Your task to perform on an android device: see creations saved in the google photos Image 0: 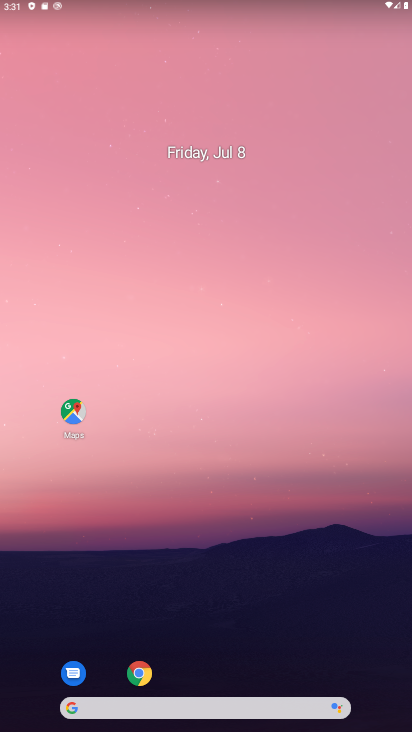
Step 0: drag from (266, 692) to (265, 61)
Your task to perform on an android device: see creations saved in the google photos Image 1: 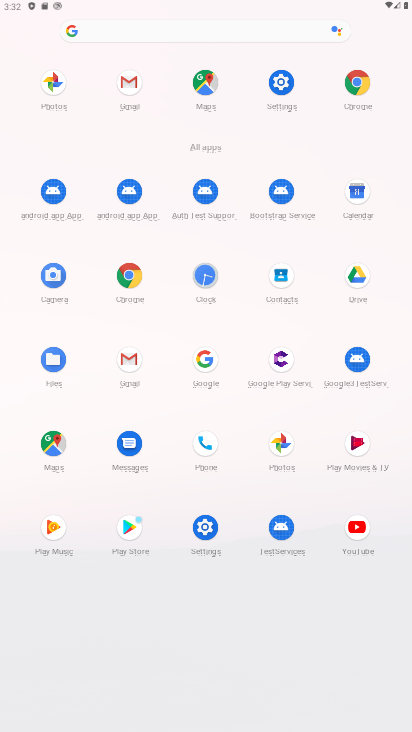
Step 1: click (50, 92)
Your task to perform on an android device: see creations saved in the google photos Image 2: 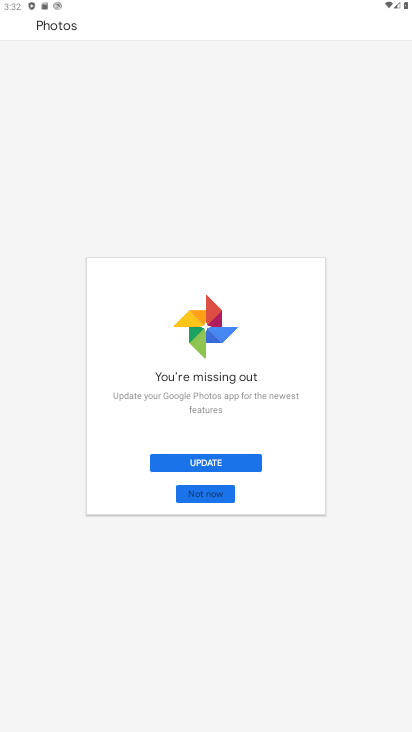
Step 2: click (212, 499)
Your task to perform on an android device: see creations saved in the google photos Image 3: 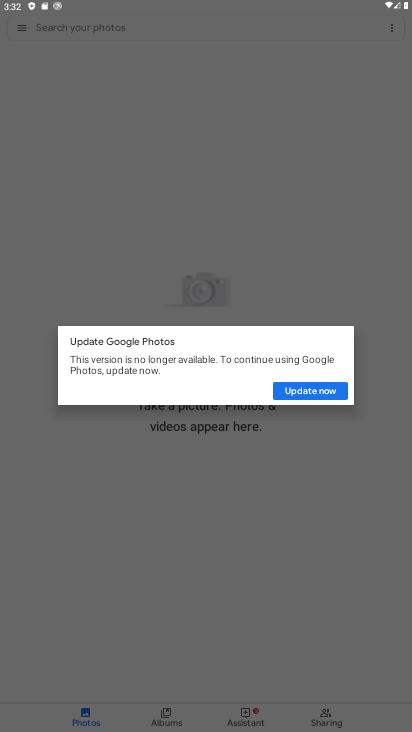
Step 3: click (297, 393)
Your task to perform on an android device: see creations saved in the google photos Image 4: 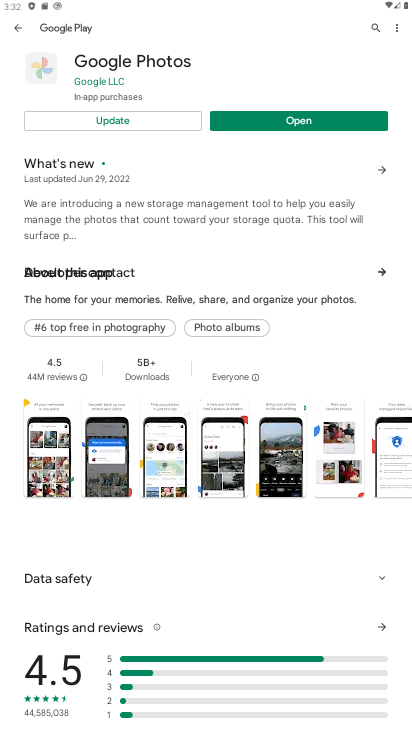
Step 4: click (268, 125)
Your task to perform on an android device: see creations saved in the google photos Image 5: 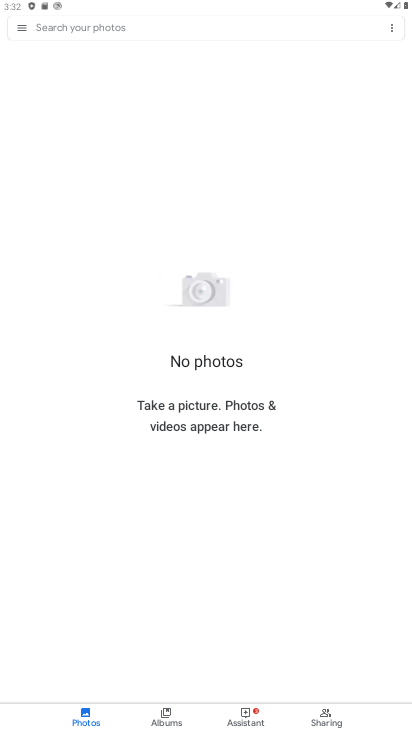
Step 5: click (46, 27)
Your task to perform on an android device: see creations saved in the google photos Image 6: 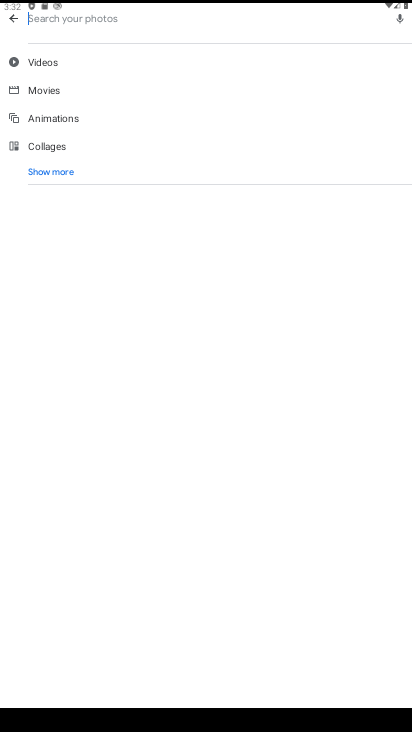
Step 6: click (47, 172)
Your task to perform on an android device: see creations saved in the google photos Image 7: 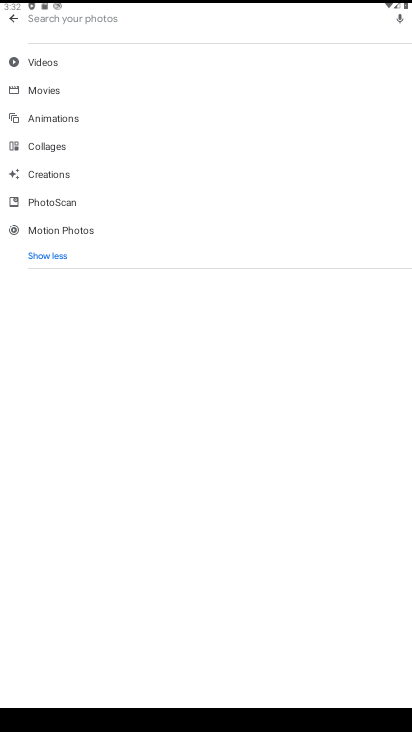
Step 7: click (49, 175)
Your task to perform on an android device: see creations saved in the google photos Image 8: 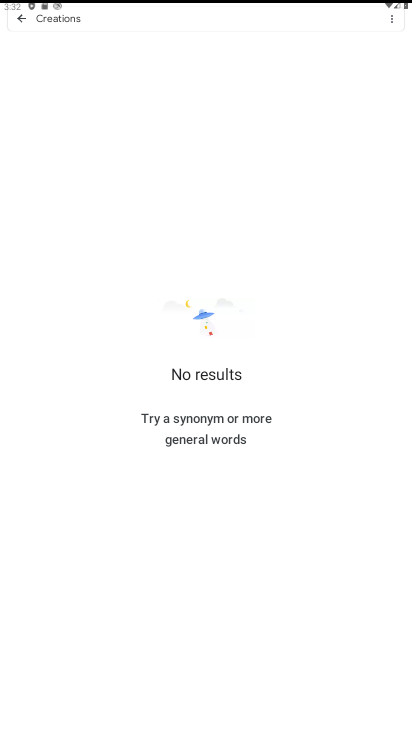
Step 8: task complete